Your task to perform on an android device: Is it going to rain today? Image 0: 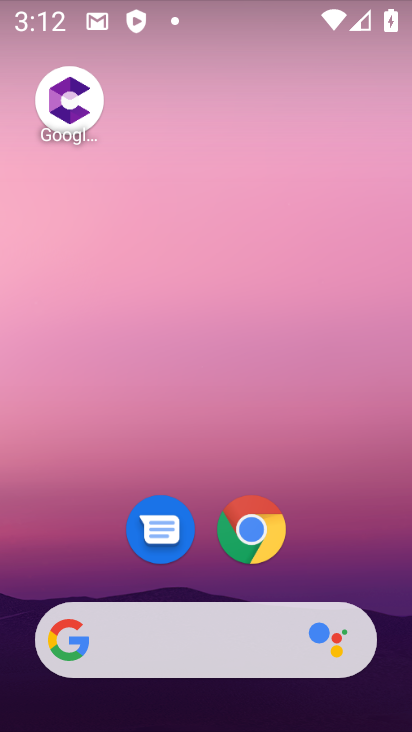
Step 0: drag from (192, 602) to (174, 129)
Your task to perform on an android device: Is it going to rain today? Image 1: 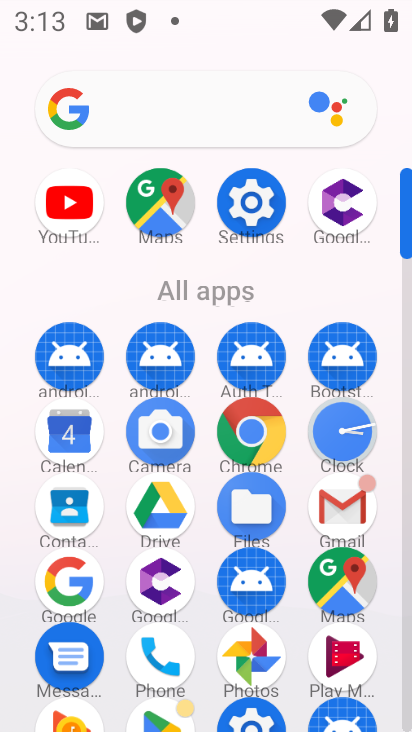
Step 1: click (67, 581)
Your task to perform on an android device: Is it going to rain today? Image 2: 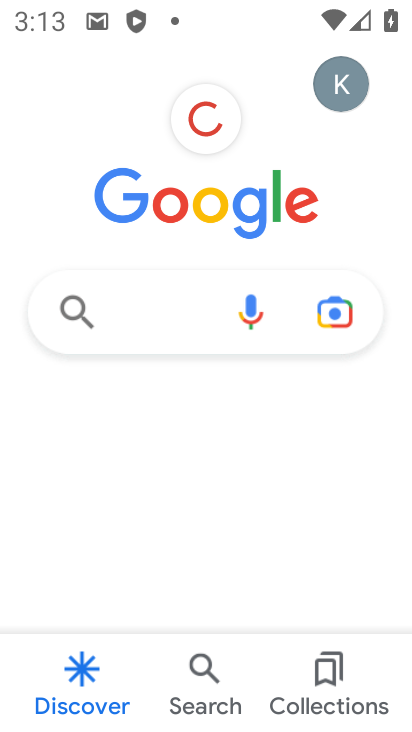
Step 2: click (158, 314)
Your task to perform on an android device: Is it going to rain today? Image 3: 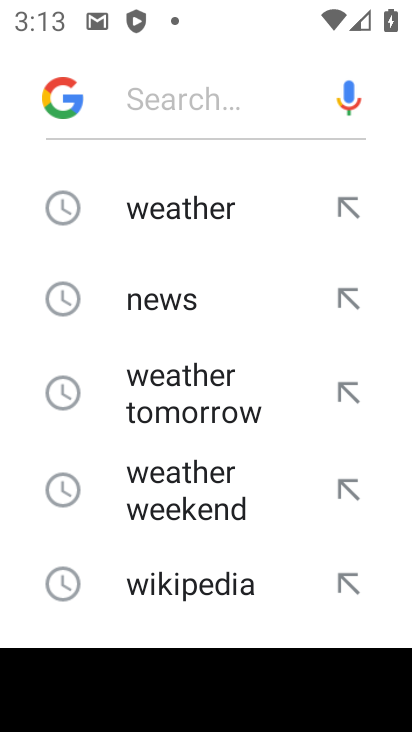
Step 3: drag from (156, 378) to (155, 220)
Your task to perform on an android device: Is it going to rain today? Image 4: 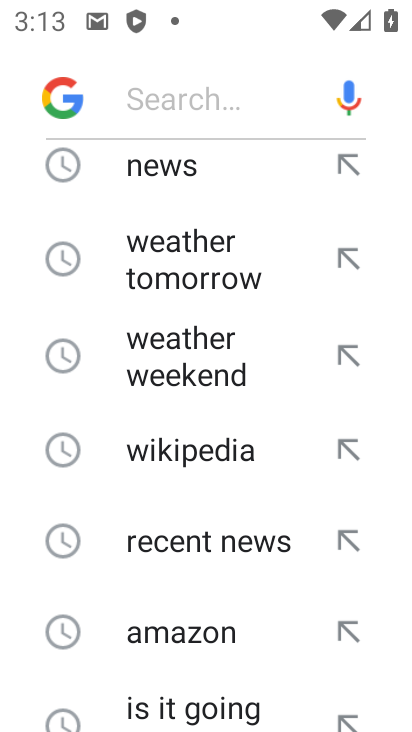
Step 4: drag from (189, 637) to (222, 288)
Your task to perform on an android device: Is it going to rain today? Image 5: 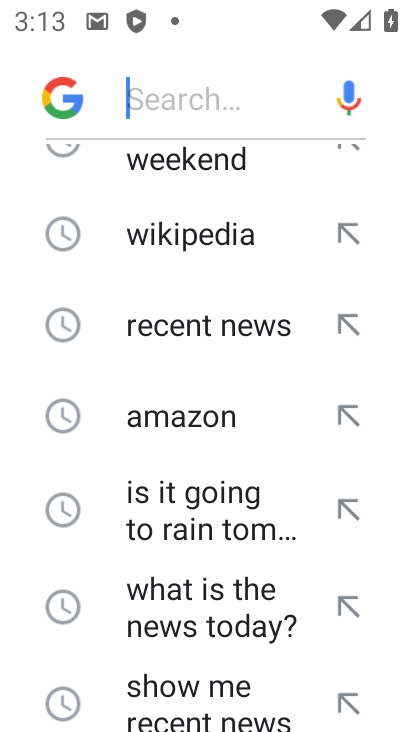
Step 5: drag from (176, 711) to (221, 363)
Your task to perform on an android device: Is it going to rain today? Image 6: 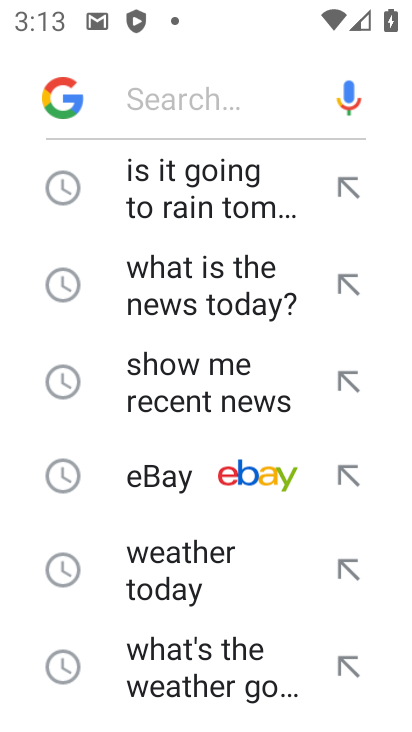
Step 6: drag from (196, 690) to (196, 322)
Your task to perform on an android device: Is it going to rain today? Image 7: 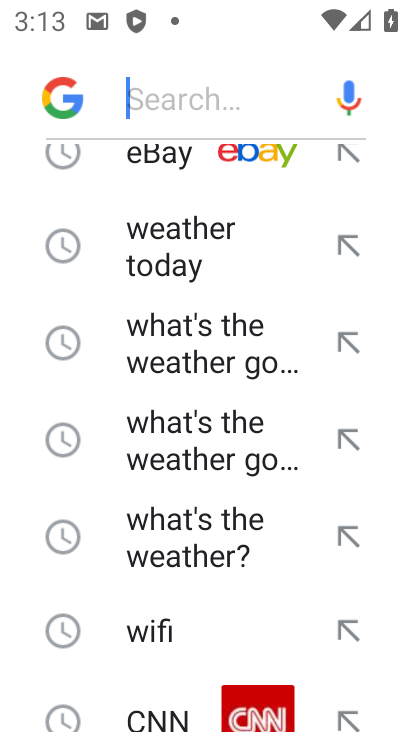
Step 7: drag from (171, 679) to (169, 353)
Your task to perform on an android device: Is it going to rain today? Image 8: 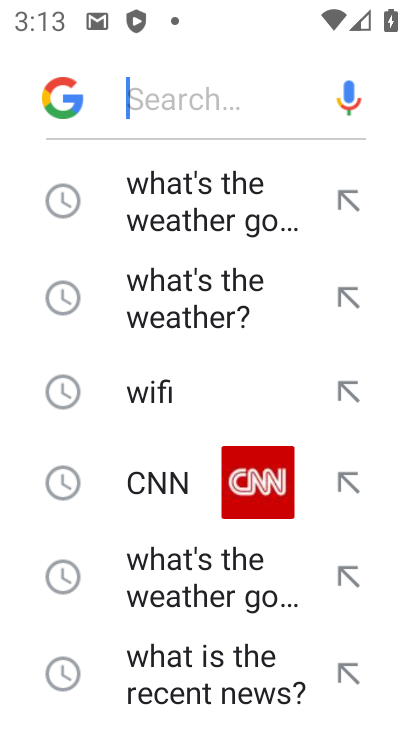
Step 8: drag from (170, 689) to (173, 335)
Your task to perform on an android device: Is it going to rain today? Image 9: 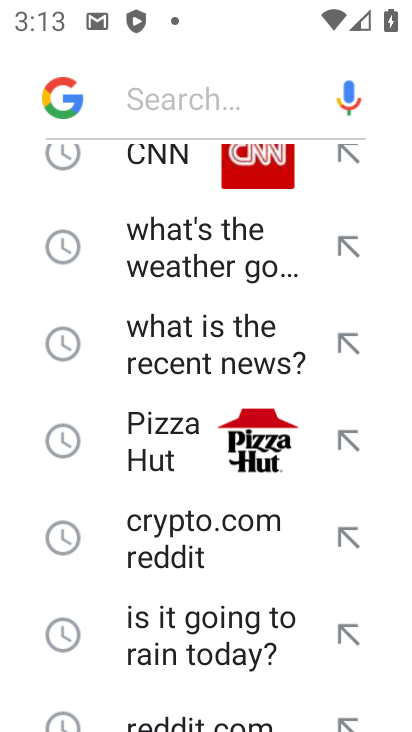
Step 9: click (228, 629)
Your task to perform on an android device: Is it going to rain today? Image 10: 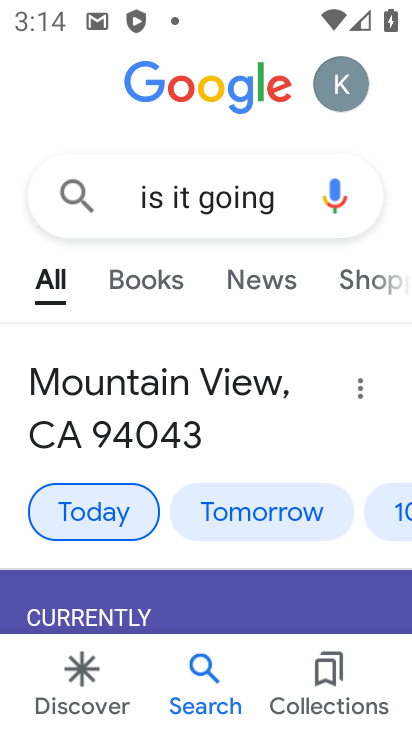
Step 10: task complete